Your task to perform on an android device: check android version Image 0: 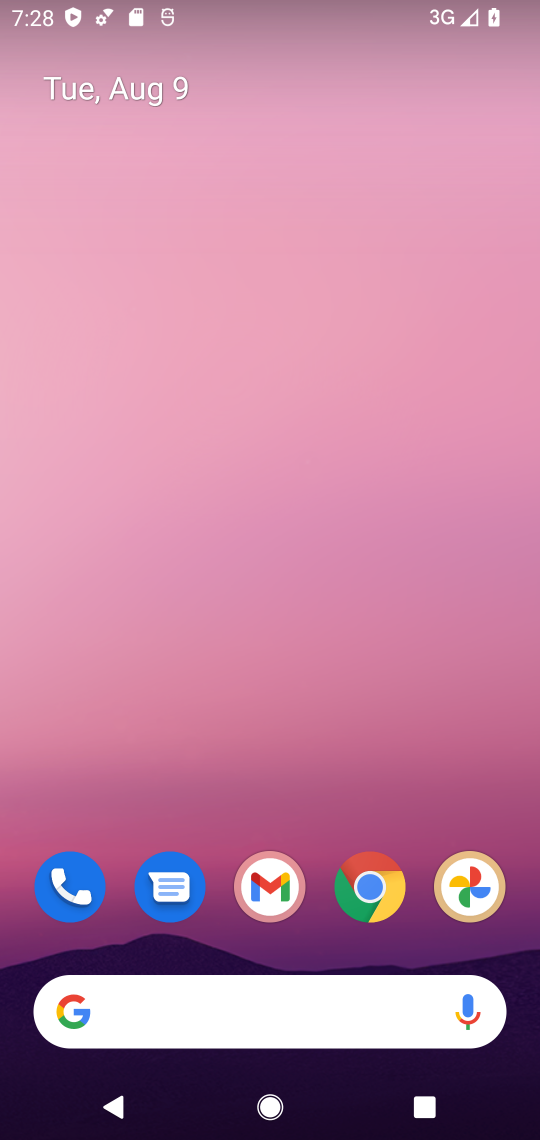
Step 0: drag from (278, 804) to (269, 0)
Your task to perform on an android device: check android version Image 1: 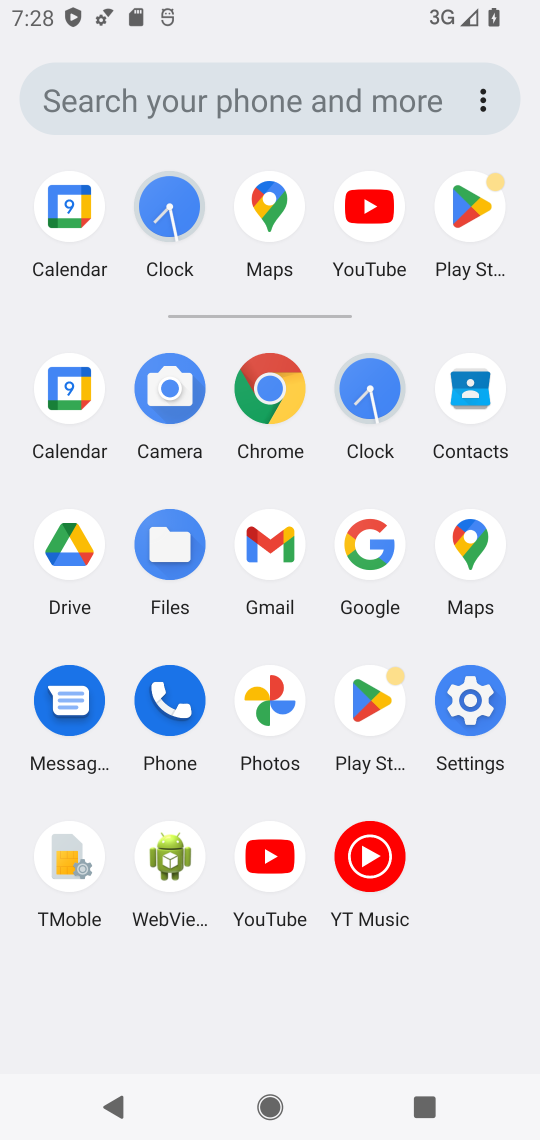
Step 1: click (467, 703)
Your task to perform on an android device: check android version Image 2: 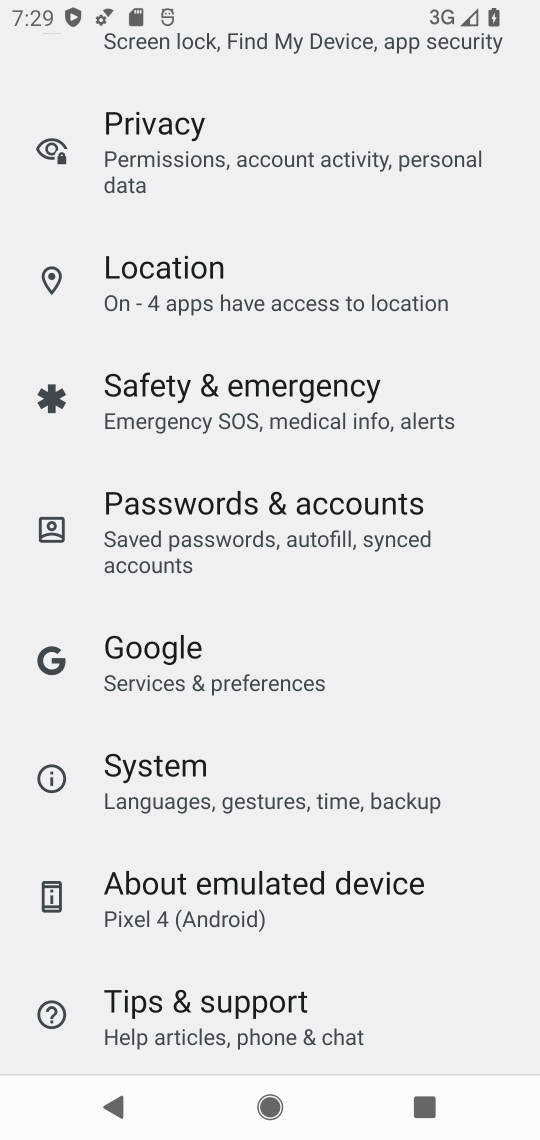
Step 2: click (277, 885)
Your task to perform on an android device: check android version Image 3: 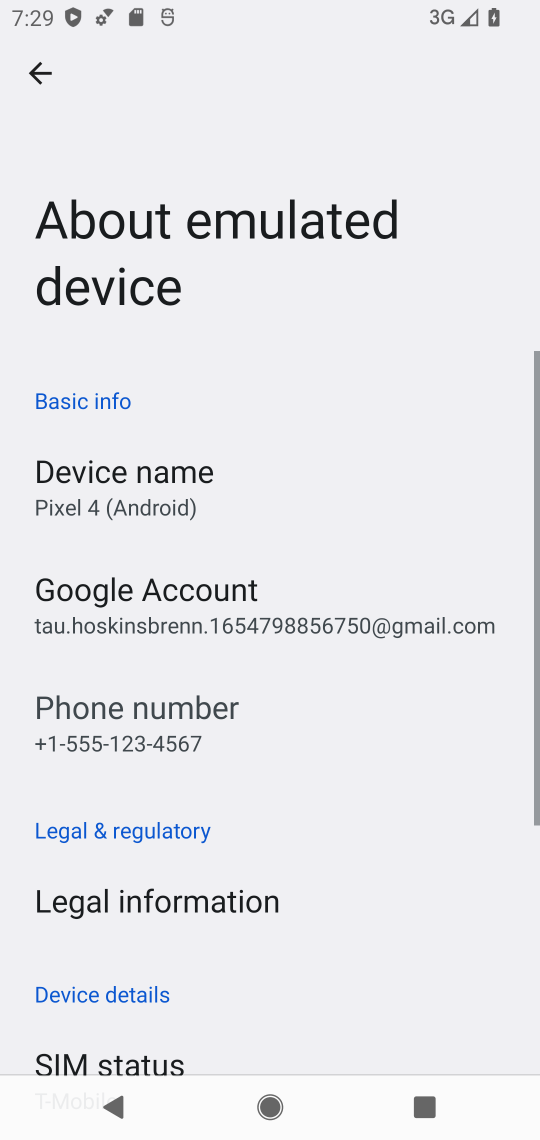
Step 3: drag from (277, 962) to (349, 9)
Your task to perform on an android device: check android version Image 4: 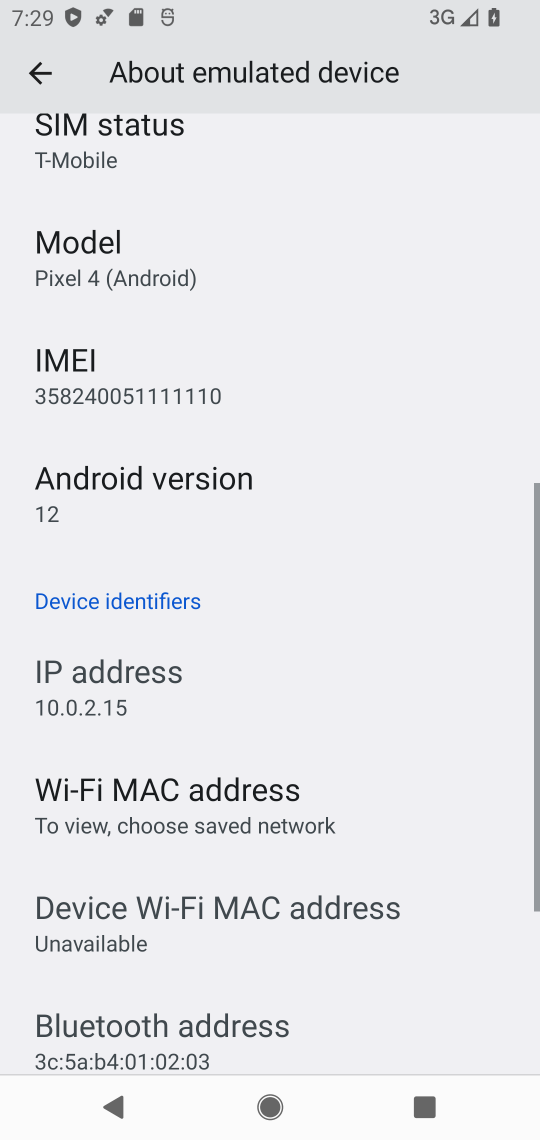
Step 4: drag from (282, 970) to (272, 329)
Your task to perform on an android device: check android version Image 5: 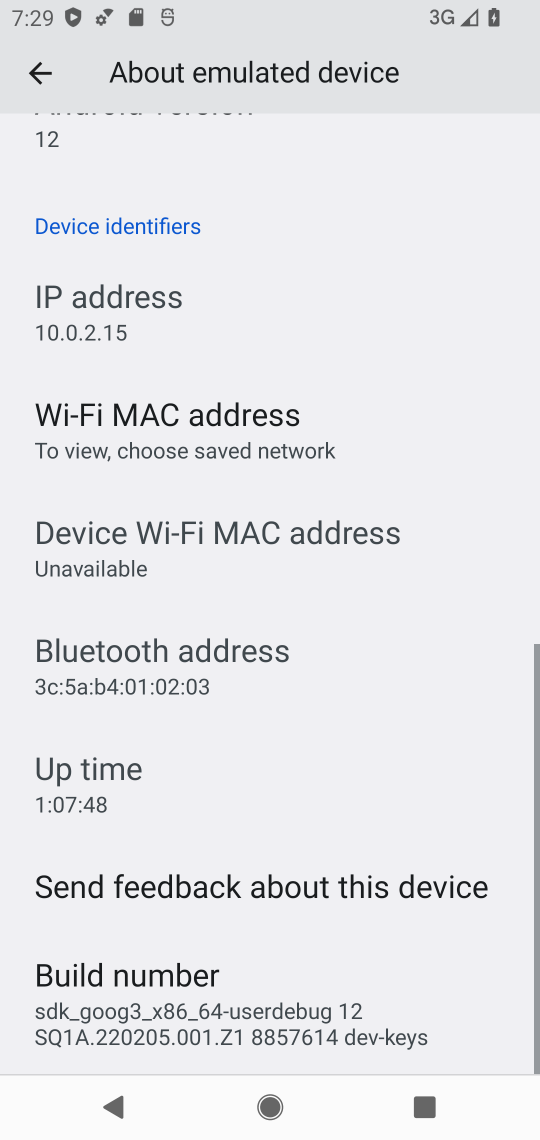
Step 5: drag from (245, 415) to (243, 614)
Your task to perform on an android device: check android version Image 6: 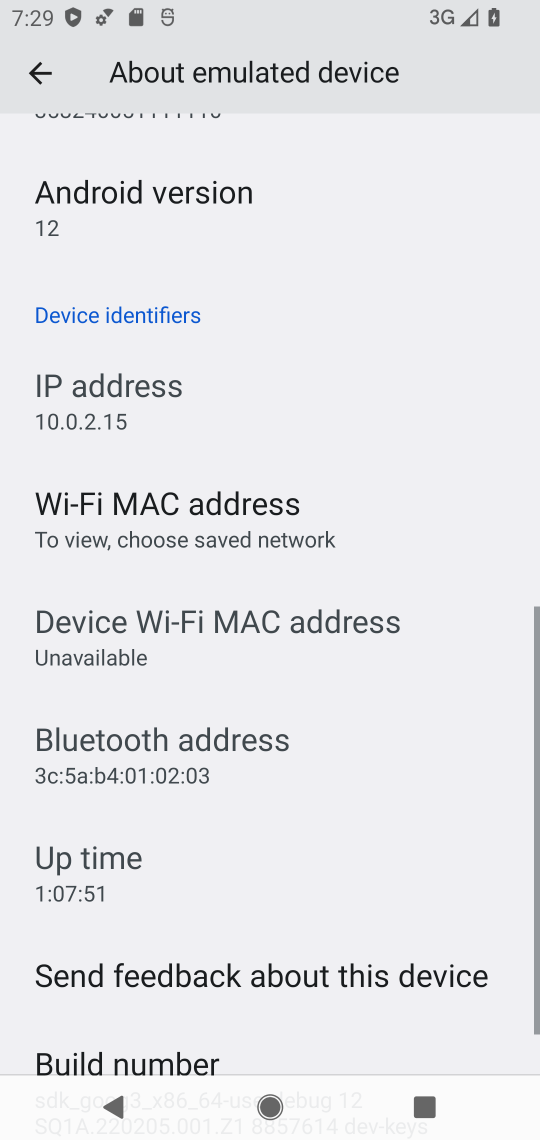
Step 6: click (174, 216)
Your task to perform on an android device: check android version Image 7: 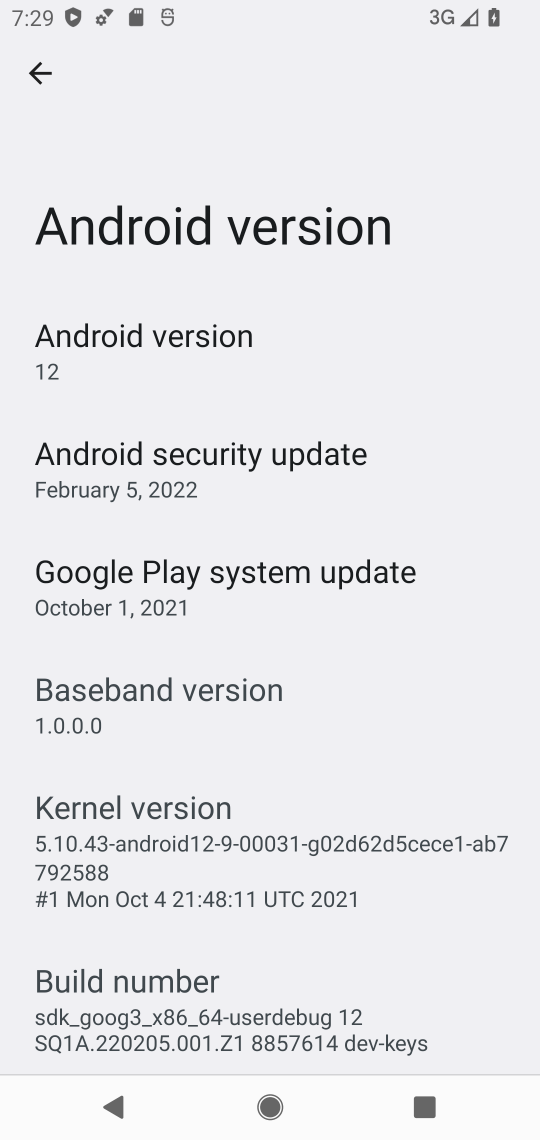
Step 7: task complete